Your task to perform on an android device: Open Amazon Image 0: 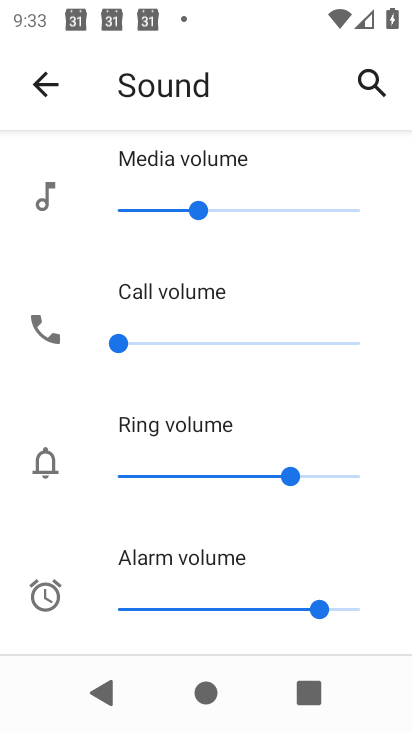
Step 0: press home button
Your task to perform on an android device: Open Amazon Image 1: 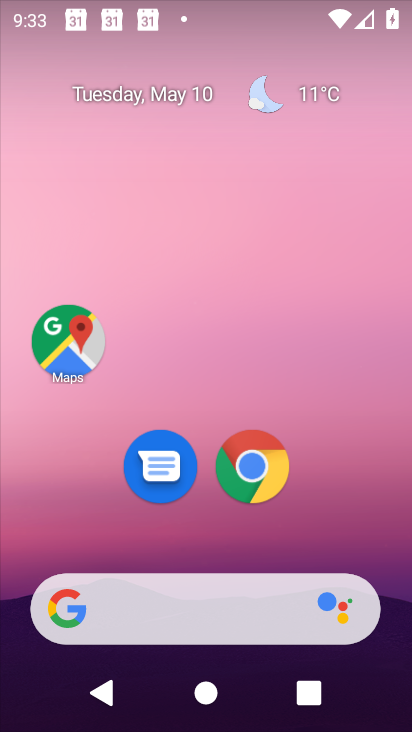
Step 1: drag from (331, 491) to (329, 179)
Your task to perform on an android device: Open Amazon Image 2: 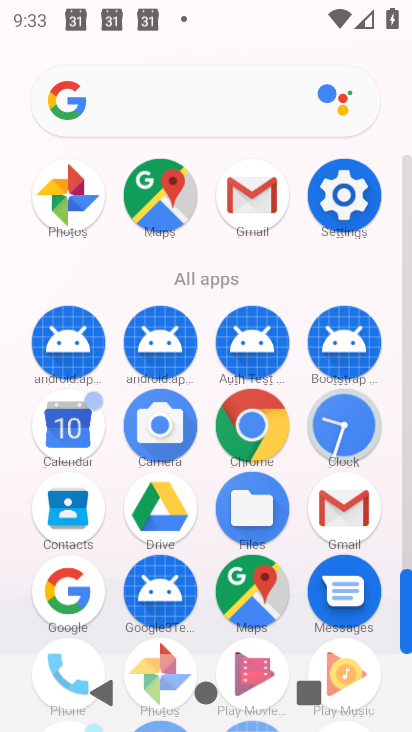
Step 2: click (268, 437)
Your task to perform on an android device: Open Amazon Image 3: 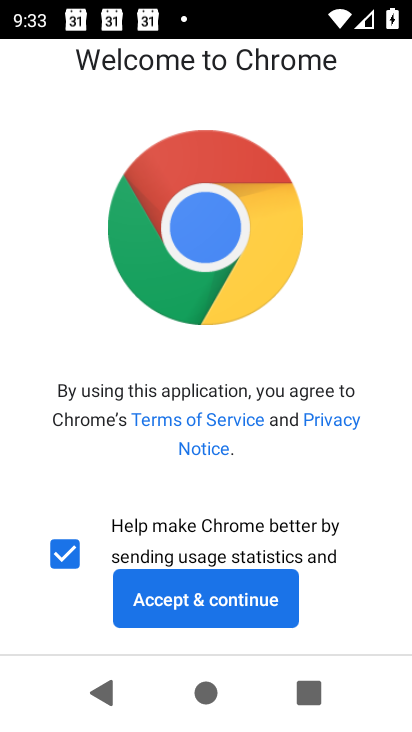
Step 3: click (192, 591)
Your task to perform on an android device: Open Amazon Image 4: 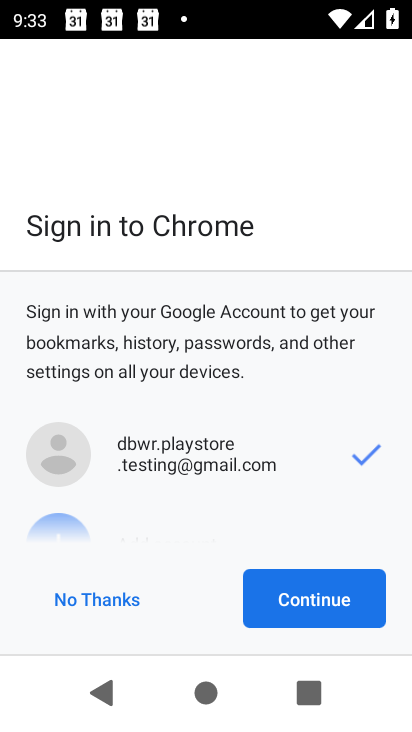
Step 4: click (297, 591)
Your task to perform on an android device: Open Amazon Image 5: 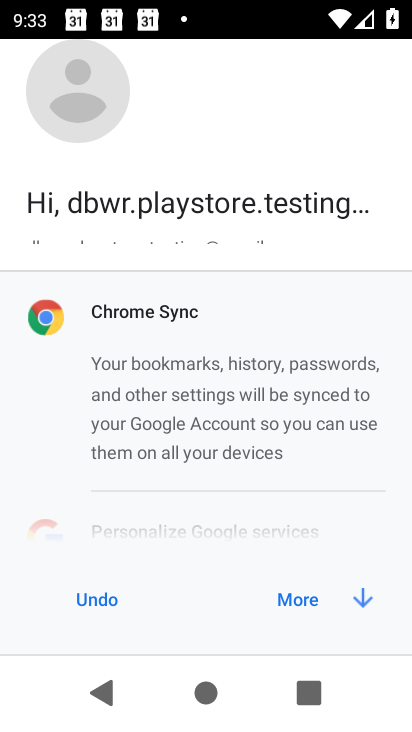
Step 5: click (297, 591)
Your task to perform on an android device: Open Amazon Image 6: 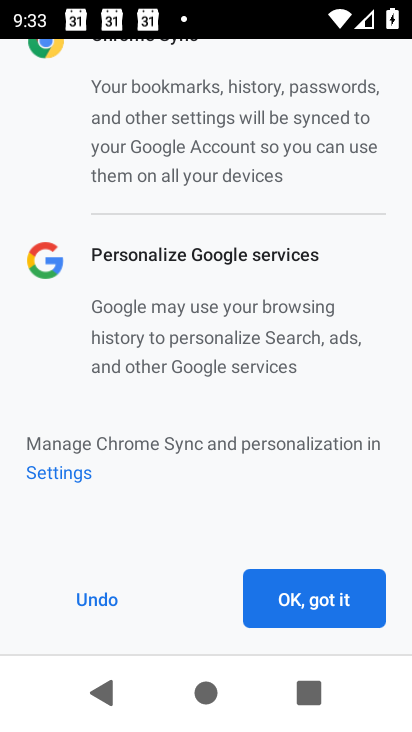
Step 6: click (297, 591)
Your task to perform on an android device: Open Amazon Image 7: 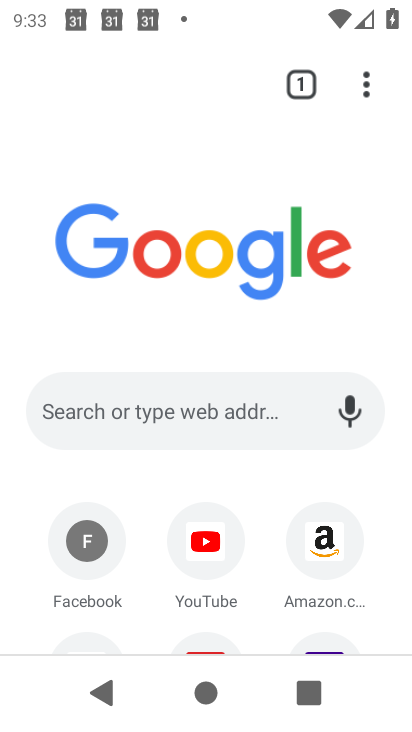
Step 7: click (335, 549)
Your task to perform on an android device: Open Amazon Image 8: 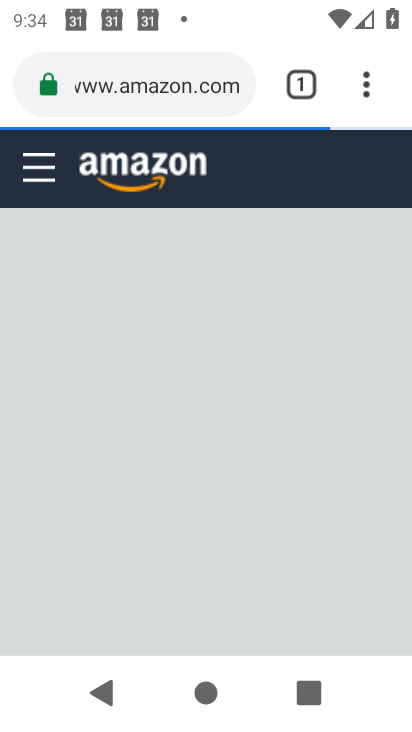
Step 8: task complete